Your task to perform on an android device: Check the news Image 0: 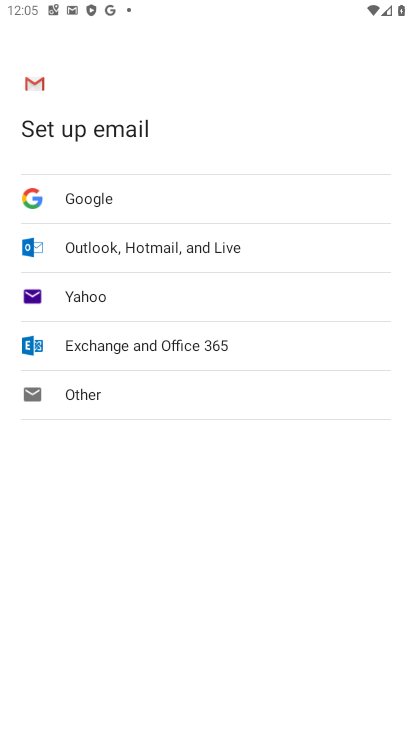
Step 0: press home button
Your task to perform on an android device: Check the news Image 1: 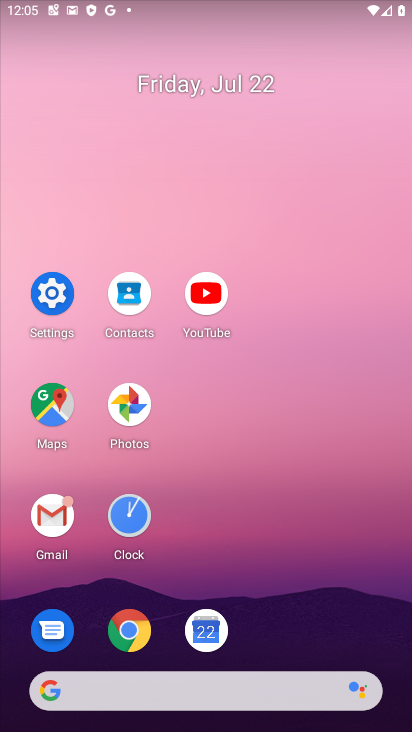
Step 1: task complete